Your task to perform on an android device: Search for corsair k70 on costco.com, select the first entry, add it to the cart, then select checkout. Image 0: 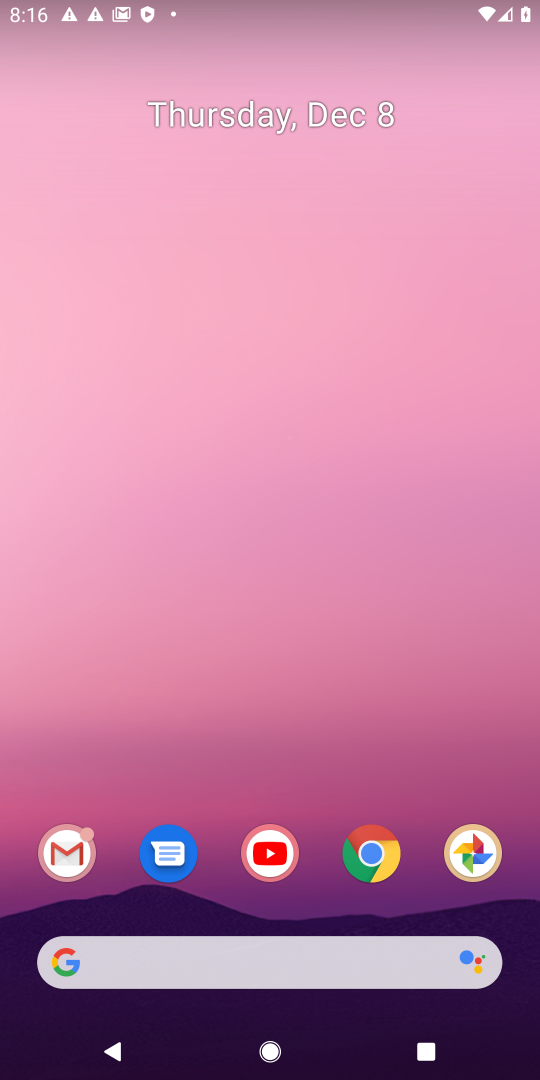
Step 0: click (135, 959)
Your task to perform on an android device: Search for corsair k70 on costco.com, select the first entry, add it to the cart, then select checkout. Image 1: 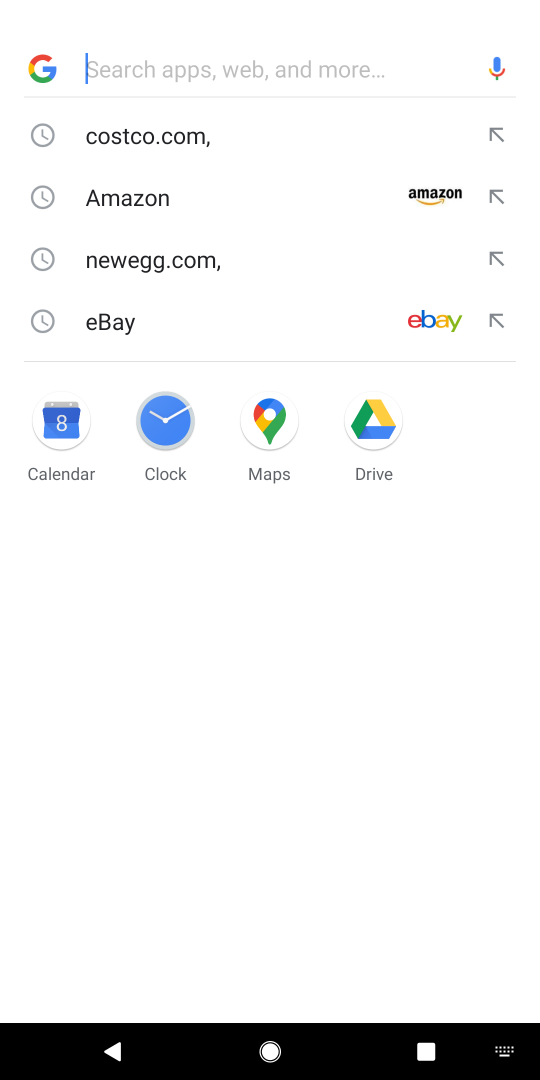
Step 1: click (128, 138)
Your task to perform on an android device: Search for corsair k70 on costco.com, select the first entry, add it to the cart, then select checkout. Image 2: 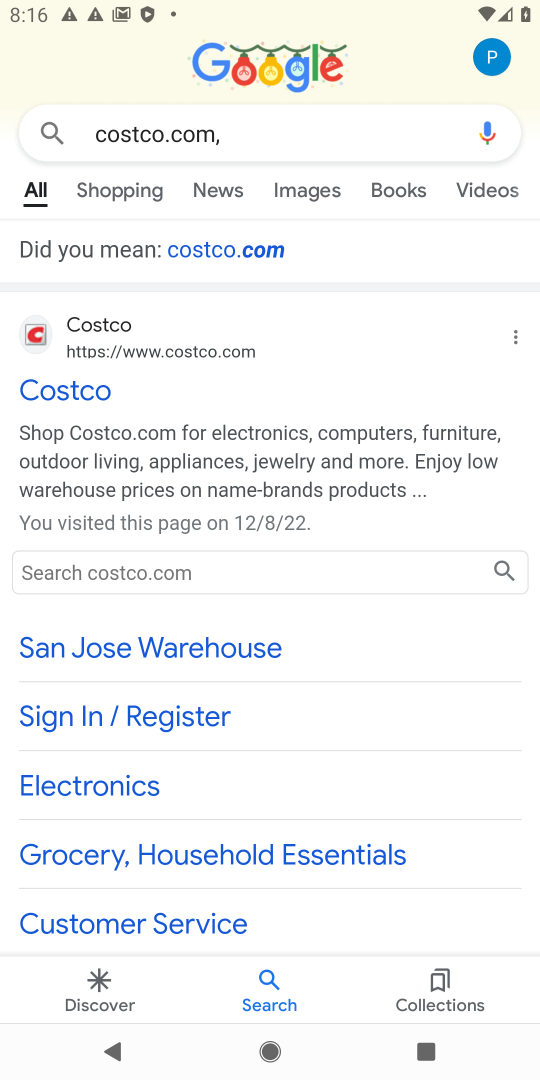
Step 2: click (55, 393)
Your task to perform on an android device: Search for corsair k70 on costco.com, select the first entry, add it to the cart, then select checkout. Image 3: 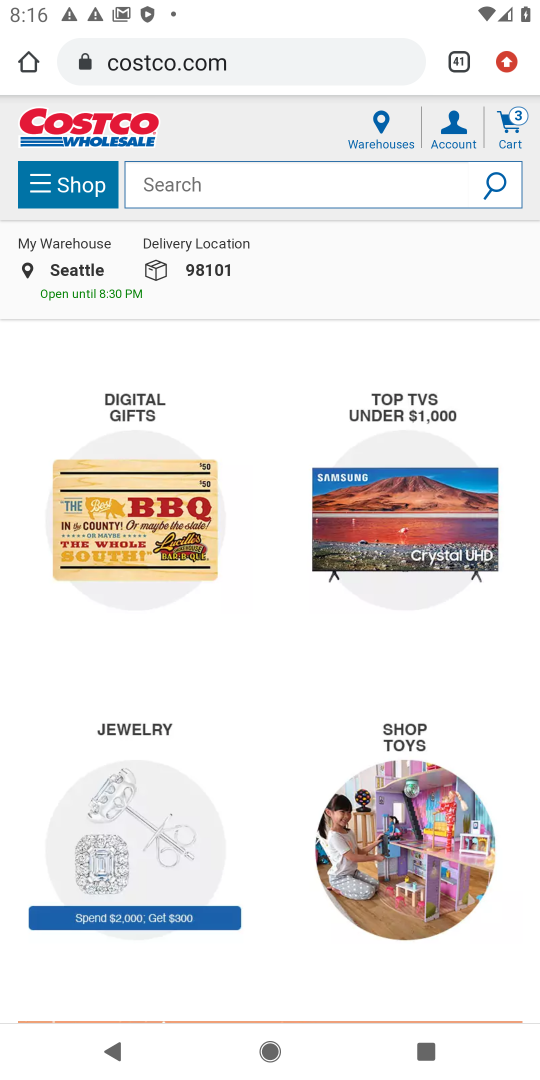
Step 3: click (293, 184)
Your task to perform on an android device: Search for corsair k70 on costco.com, select the first entry, add it to the cart, then select checkout. Image 4: 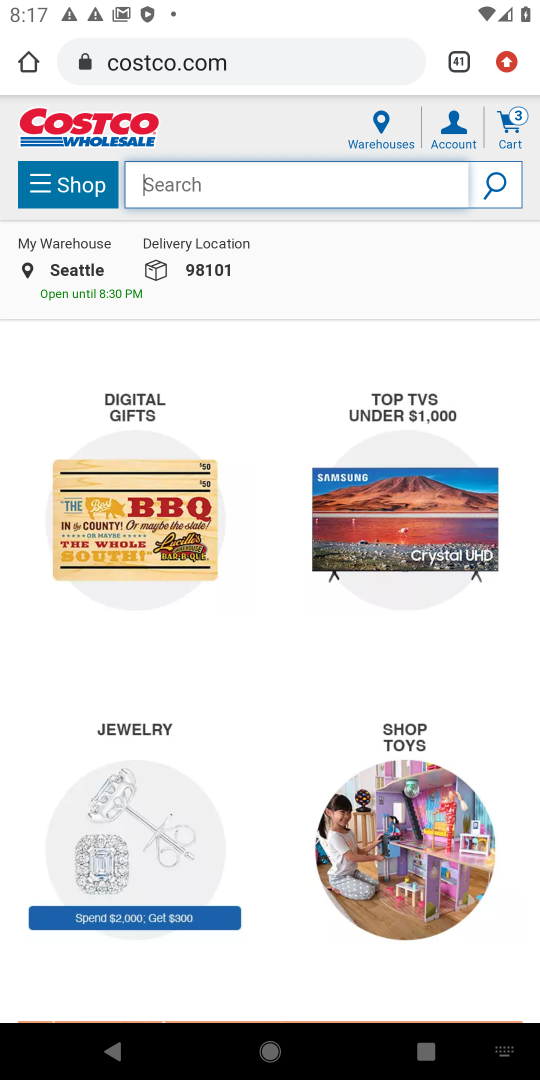
Step 4: type "corsair k70"
Your task to perform on an android device: Search for corsair k70 on costco.com, select the first entry, add it to the cart, then select checkout. Image 5: 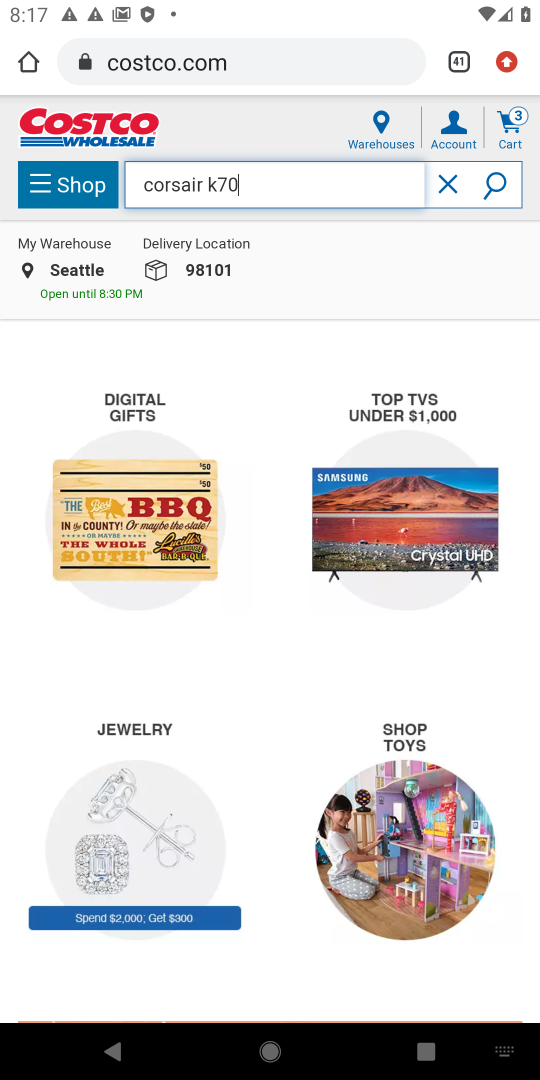
Step 5: click (497, 189)
Your task to perform on an android device: Search for corsair k70 on costco.com, select the first entry, add it to the cart, then select checkout. Image 6: 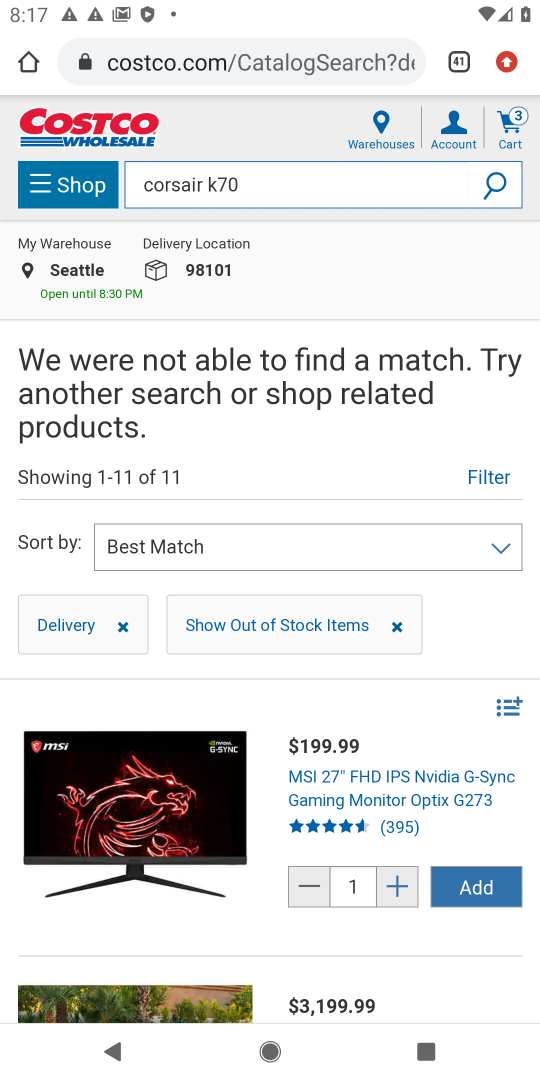
Step 6: click (492, 886)
Your task to perform on an android device: Search for corsair k70 on costco.com, select the first entry, add it to the cart, then select checkout. Image 7: 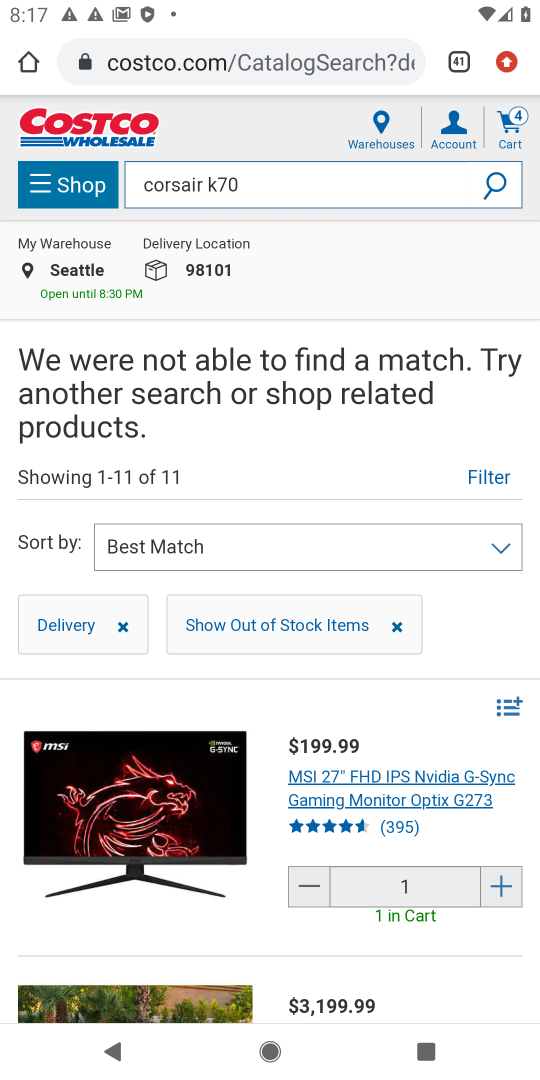
Step 7: click (510, 119)
Your task to perform on an android device: Search for corsair k70 on costco.com, select the first entry, add it to the cart, then select checkout. Image 8: 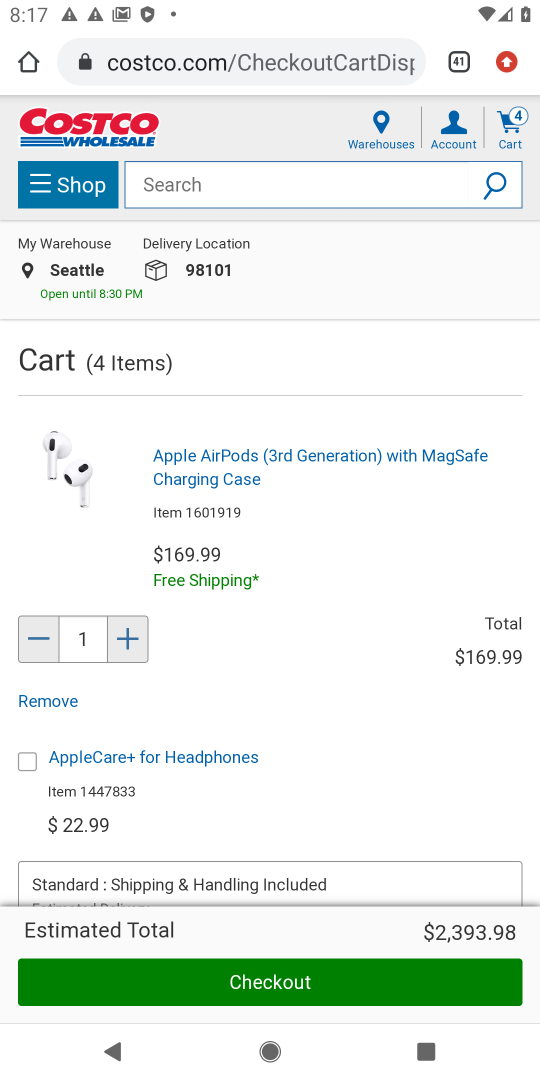
Step 8: drag from (327, 784) to (325, 300)
Your task to perform on an android device: Search for corsair k70 on costco.com, select the first entry, add it to the cart, then select checkout. Image 9: 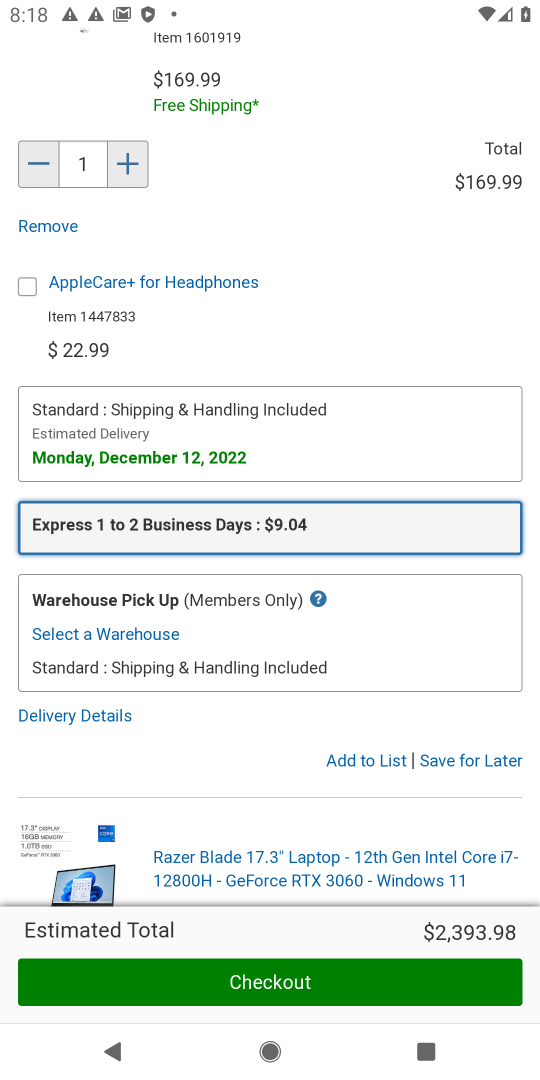
Step 9: drag from (308, 763) to (370, 323)
Your task to perform on an android device: Search for corsair k70 on costco.com, select the first entry, add it to the cart, then select checkout. Image 10: 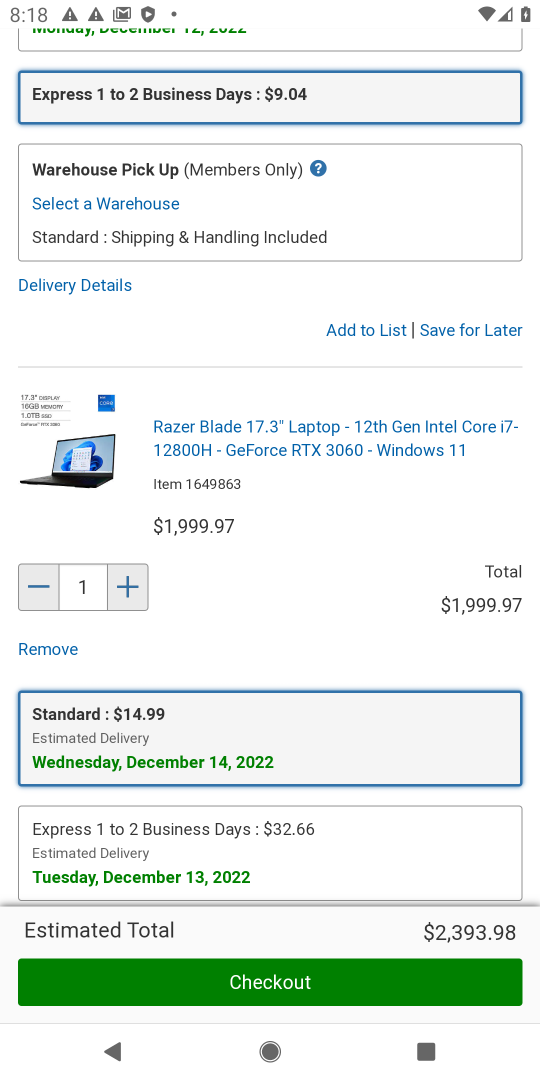
Step 10: drag from (337, 614) to (318, 317)
Your task to perform on an android device: Search for corsair k70 on costco.com, select the first entry, add it to the cart, then select checkout. Image 11: 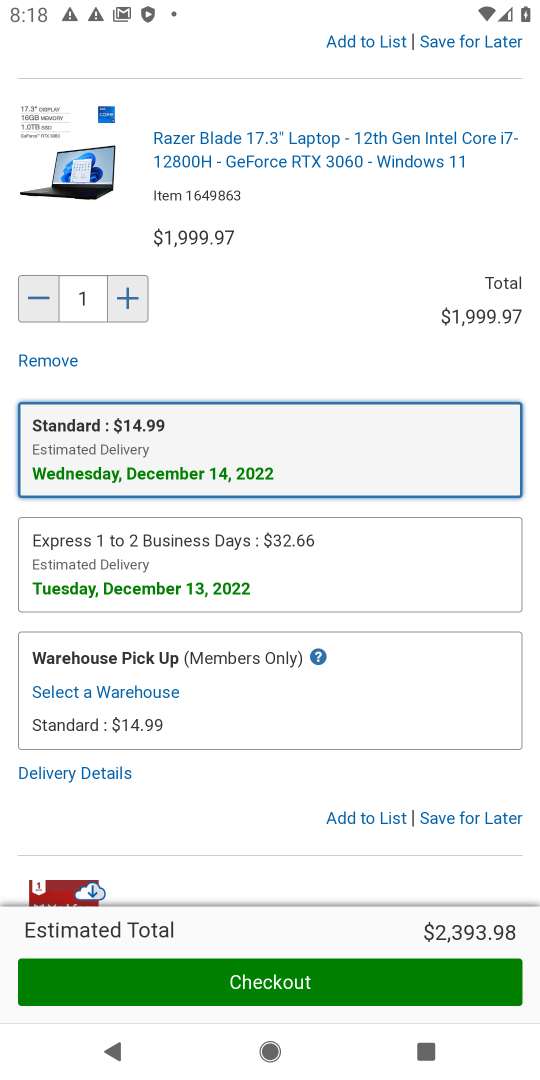
Step 11: drag from (274, 850) to (271, 253)
Your task to perform on an android device: Search for corsair k70 on costco.com, select the first entry, add it to the cart, then select checkout. Image 12: 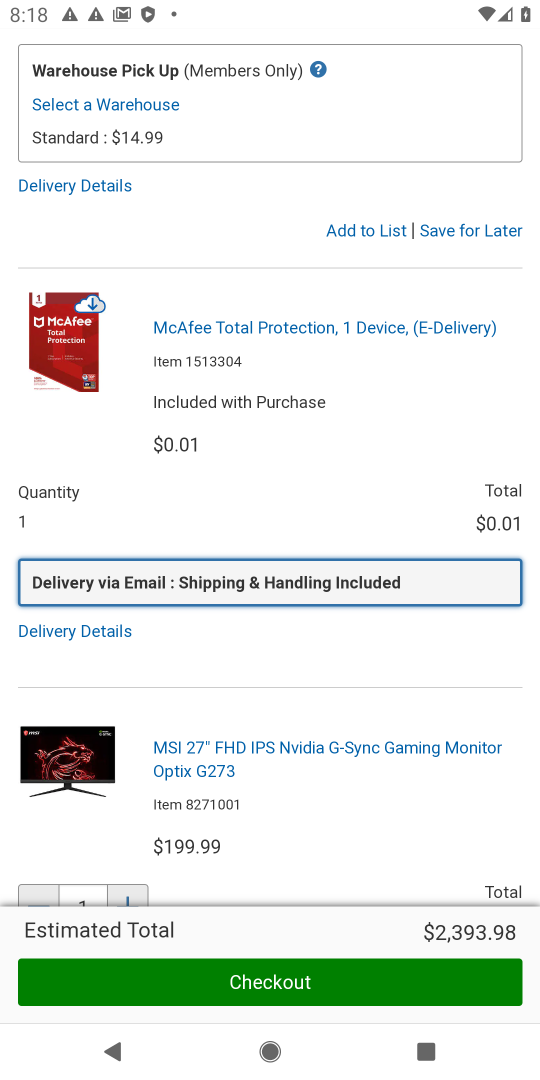
Step 12: click (272, 989)
Your task to perform on an android device: Search for corsair k70 on costco.com, select the first entry, add it to the cart, then select checkout. Image 13: 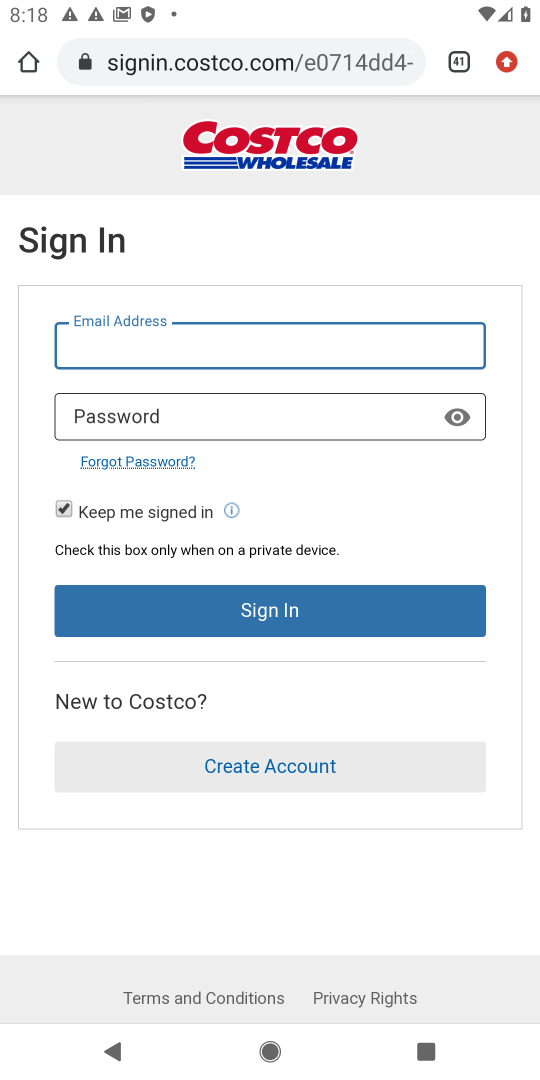
Step 13: task complete